Your task to perform on an android device: Search for Italian restaurants on Maps Image 0: 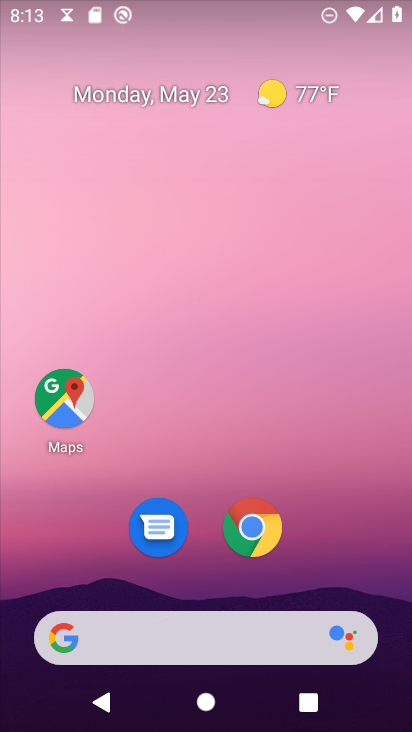
Step 0: press home button
Your task to perform on an android device: Search for Italian restaurants on Maps Image 1: 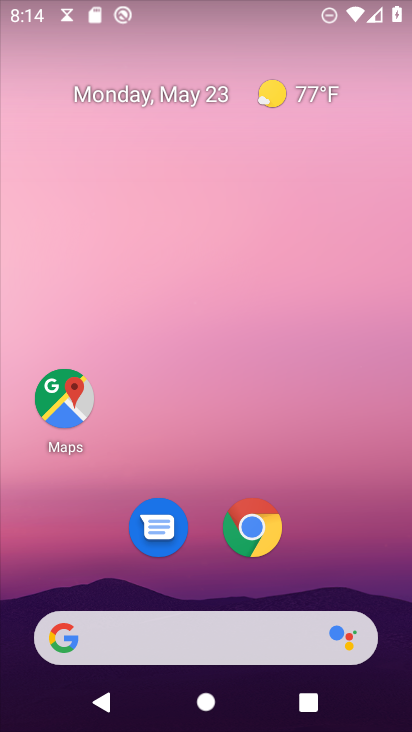
Step 1: drag from (302, 677) to (308, 188)
Your task to perform on an android device: Search for Italian restaurants on Maps Image 2: 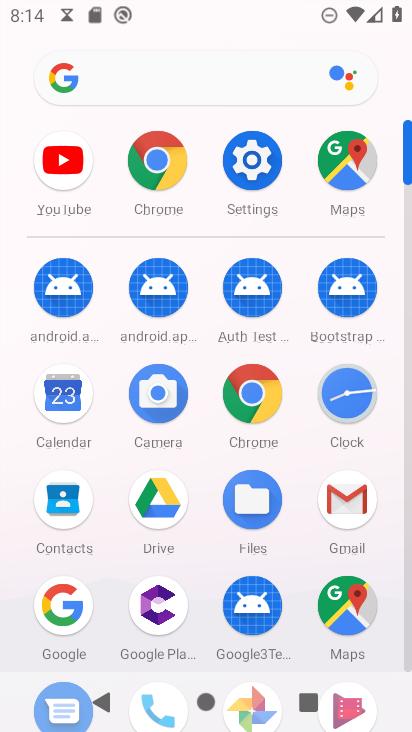
Step 2: click (333, 607)
Your task to perform on an android device: Search for Italian restaurants on Maps Image 3: 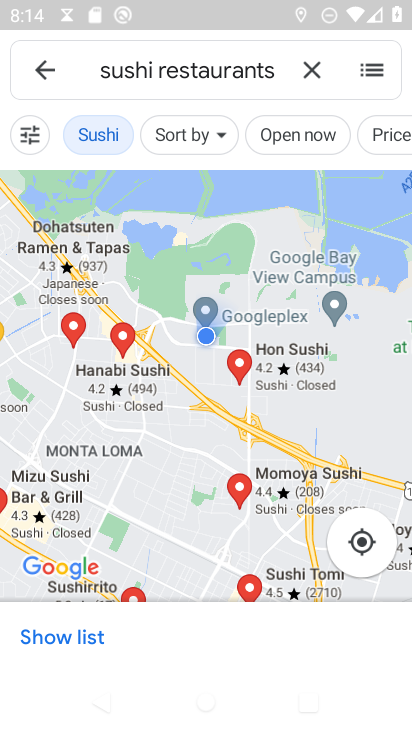
Step 3: click (320, 69)
Your task to perform on an android device: Search for Italian restaurants on Maps Image 4: 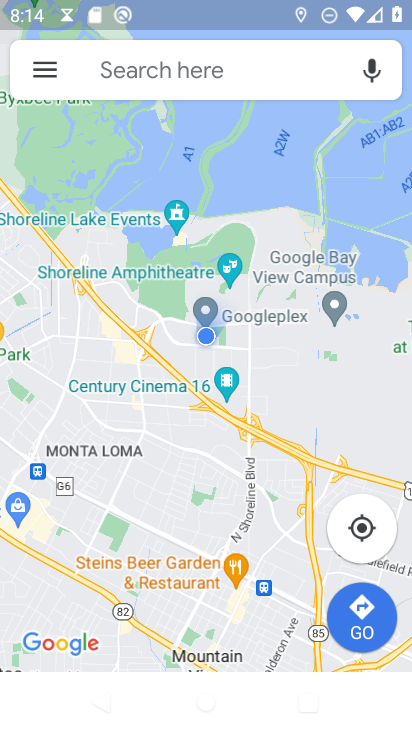
Step 4: click (225, 75)
Your task to perform on an android device: Search for Italian restaurants on Maps Image 5: 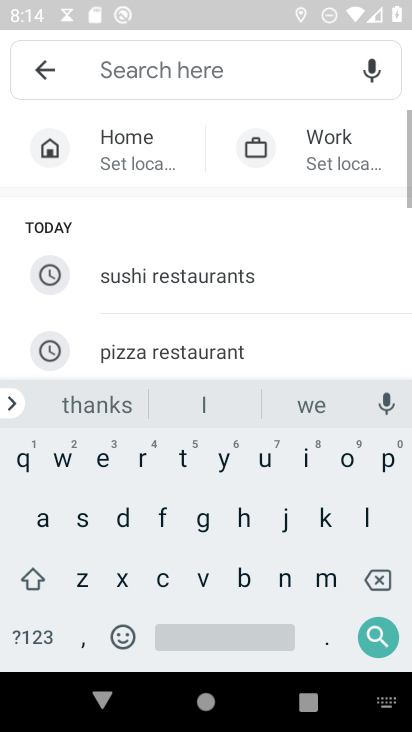
Step 5: click (306, 463)
Your task to perform on an android device: Search for Italian restaurants on Maps Image 6: 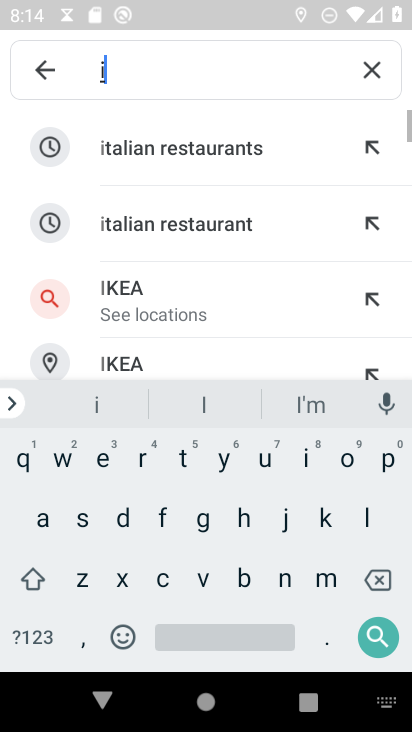
Step 6: click (190, 145)
Your task to perform on an android device: Search for Italian restaurants on Maps Image 7: 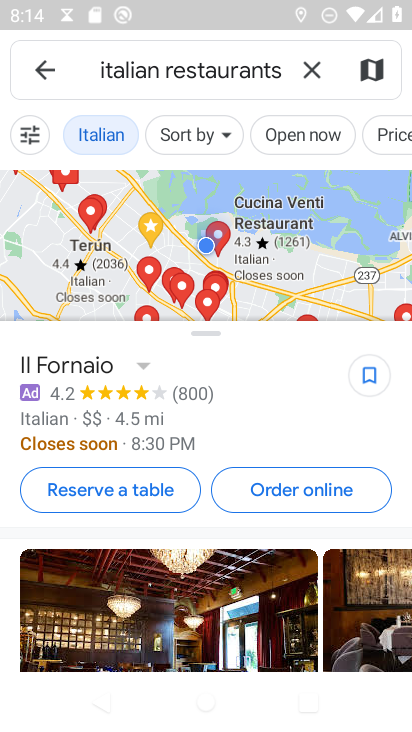
Step 7: click (128, 256)
Your task to perform on an android device: Search for Italian restaurants on Maps Image 8: 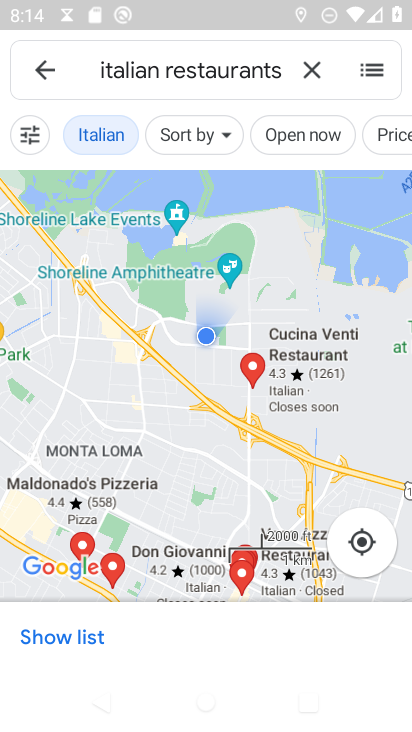
Step 8: task complete